Your task to perform on an android device: change the clock display to show seconds Image 0: 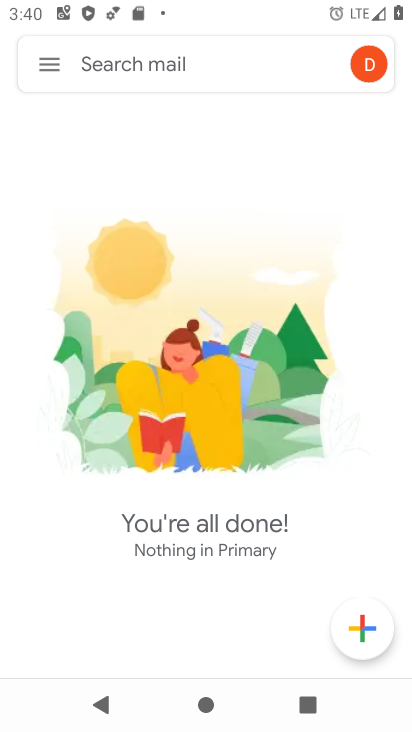
Step 0: press back button
Your task to perform on an android device: change the clock display to show seconds Image 1: 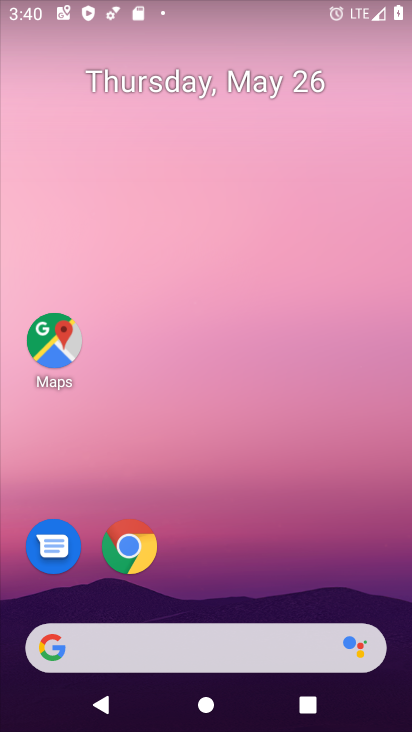
Step 1: drag from (304, 567) to (304, 29)
Your task to perform on an android device: change the clock display to show seconds Image 2: 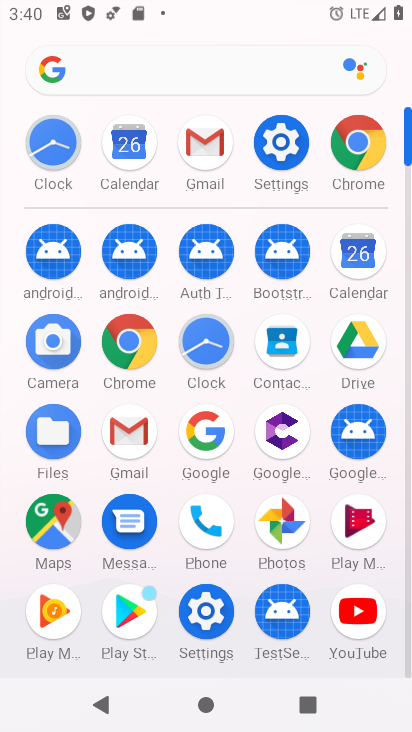
Step 2: click (207, 343)
Your task to perform on an android device: change the clock display to show seconds Image 3: 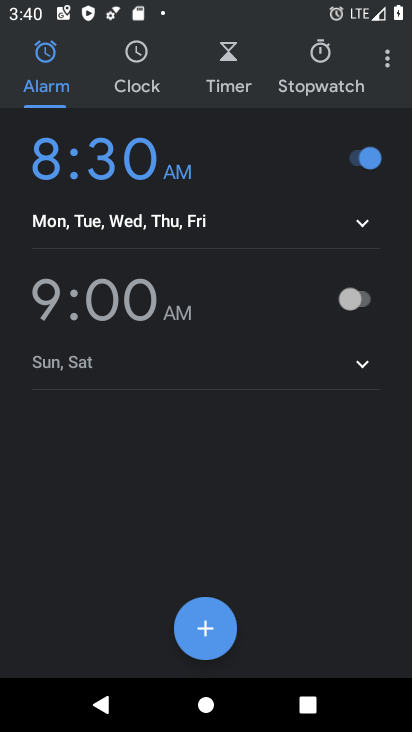
Step 3: click (389, 60)
Your task to perform on an android device: change the clock display to show seconds Image 4: 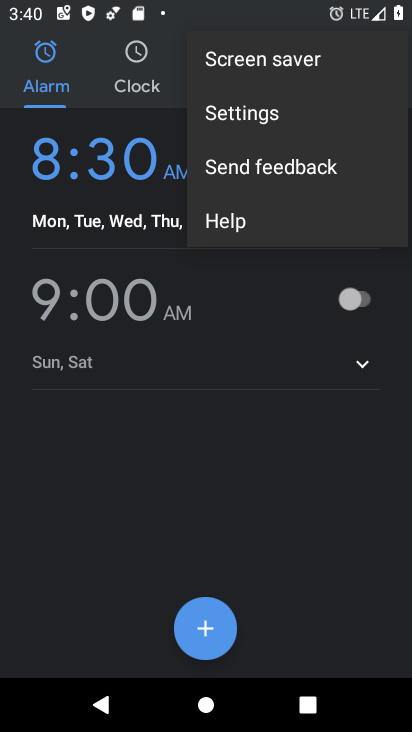
Step 4: click (281, 108)
Your task to perform on an android device: change the clock display to show seconds Image 5: 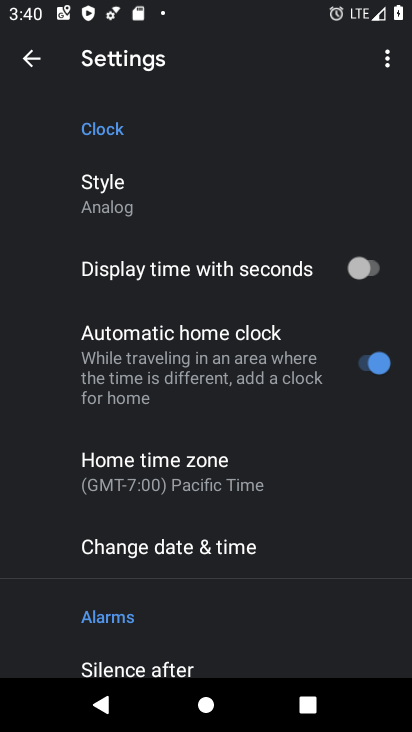
Step 5: click (133, 187)
Your task to perform on an android device: change the clock display to show seconds Image 6: 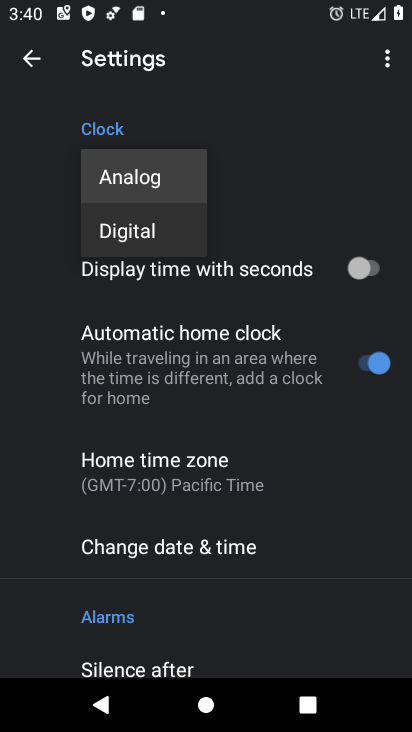
Step 6: click (145, 230)
Your task to perform on an android device: change the clock display to show seconds Image 7: 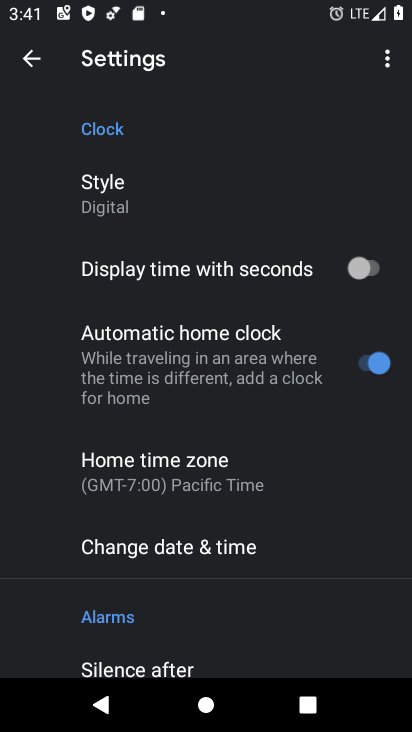
Step 7: click (368, 265)
Your task to perform on an android device: change the clock display to show seconds Image 8: 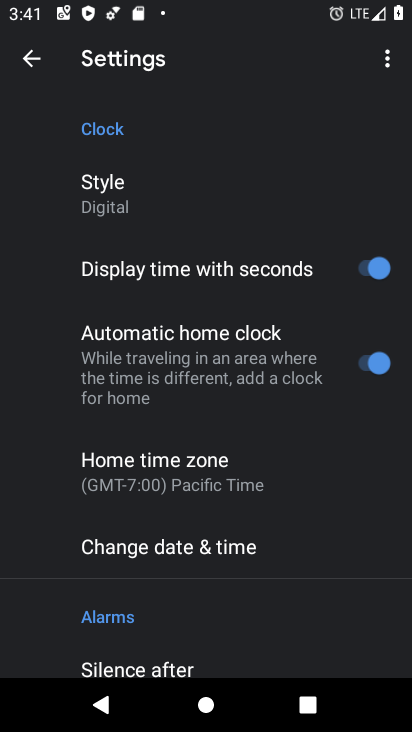
Step 8: task complete